Your task to perform on an android device: turn vacation reply on in the gmail app Image 0: 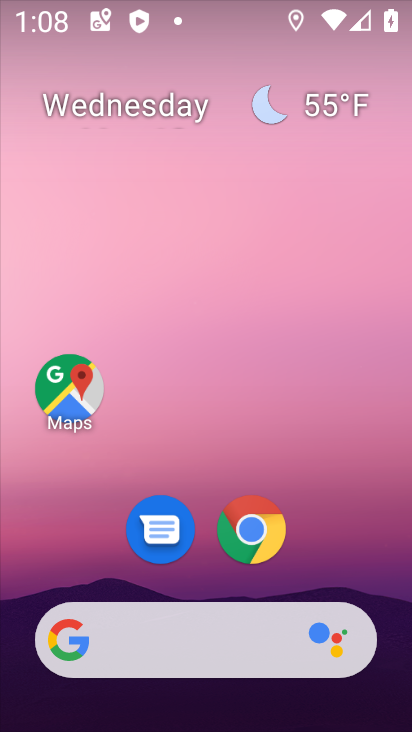
Step 0: drag from (201, 723) to (198, 187)
Your task to perform on an android device: turn vacation reply on in the gmail app Image 1: 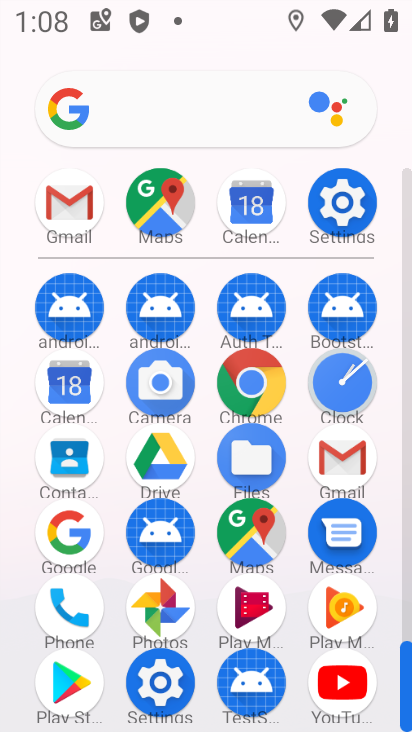
Step 1: click (349, 456)
Your task to perform on an android device: turn vacation reply on in the gmail app Image 2: 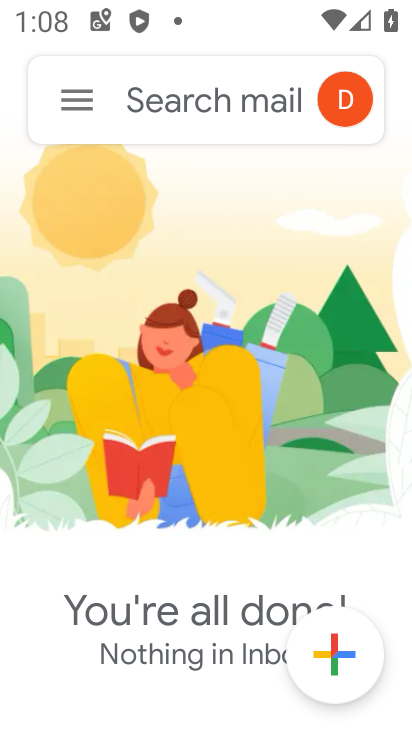
Step 2: click (77, 97)
Your task to perform on an android device: turn vacation reply on in the gmail app Image 3: 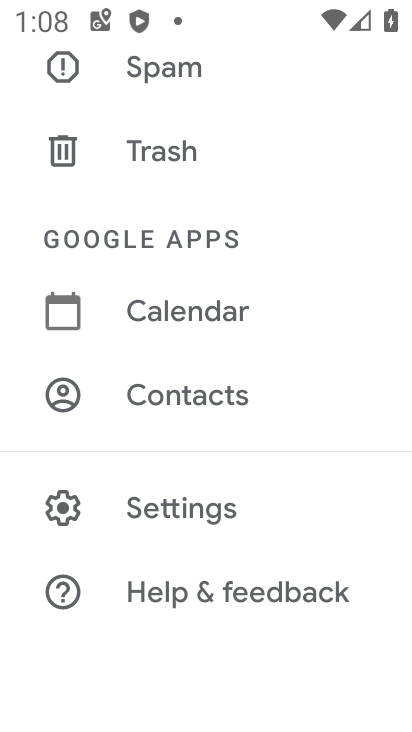
Step 3: click (193, 506)
Your task to perform on an android device: turn vacation reply on in the gmail app Image 4: 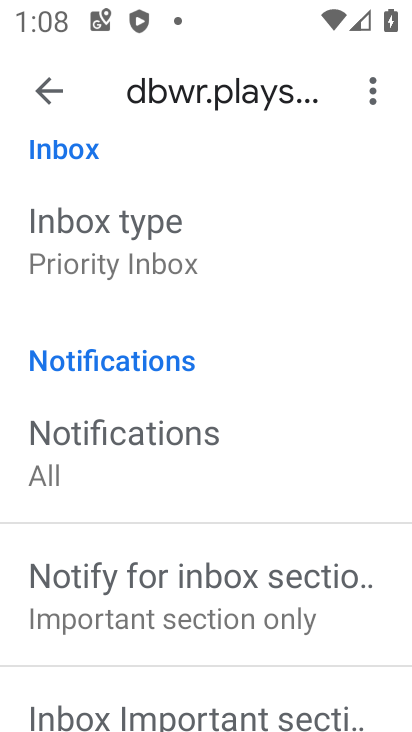
Step 4: drag from (128, 655) to (142, 343)
Your task to perform on an android device: turn vacation reply on in the gmail app Image 5: 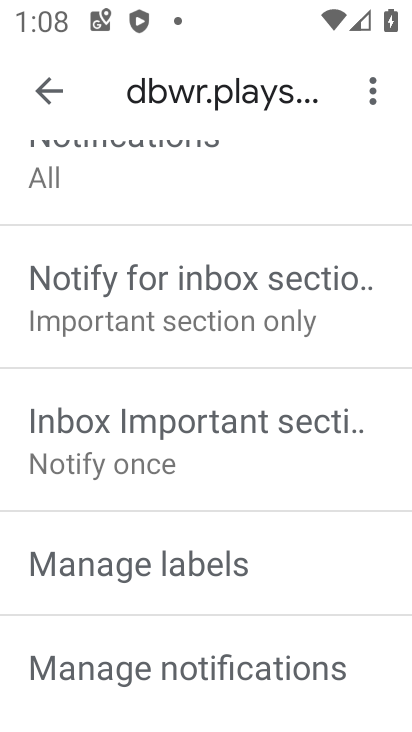
Step 5: drag from (145, 670) to (159, 283)
Your task to perform on an android device: turn vacation reply on in the gmail app Image 6: 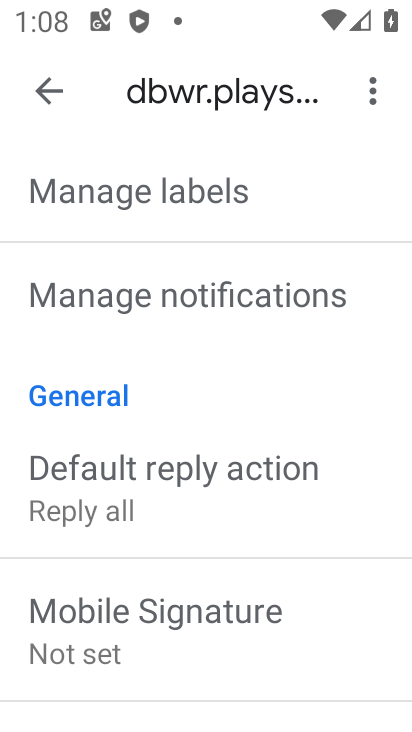
Step 6: drag from (119, 679) to (135, 277)
Your task to perform on an android device: turn vacation reply on in the gmail app Image 7: 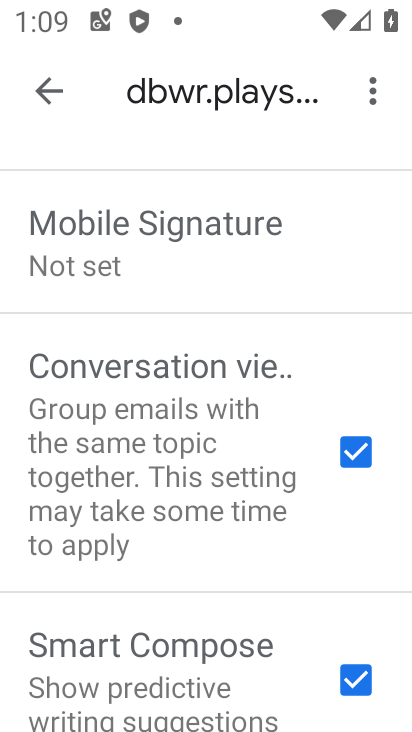
Step 7: drag from (133, 669) to (133, 309)
Your task to perform on an android device: turn vacation reply on in the gmail app Image 8: 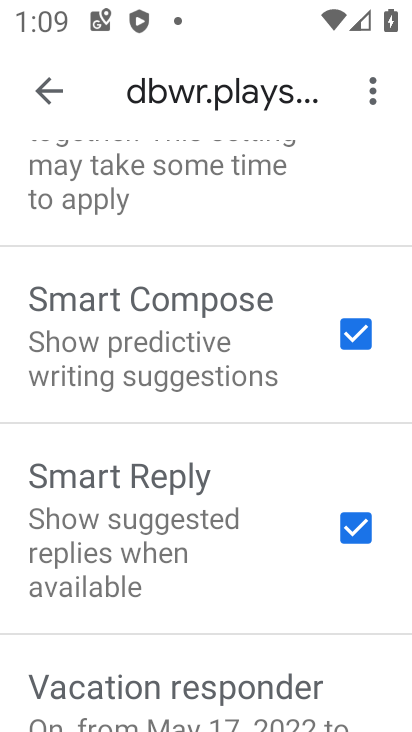
Step 8: drag from (113, 664) to (123, 354)
Your task to perform on an android device: turn vacation reply on in the gmail app Image 9: 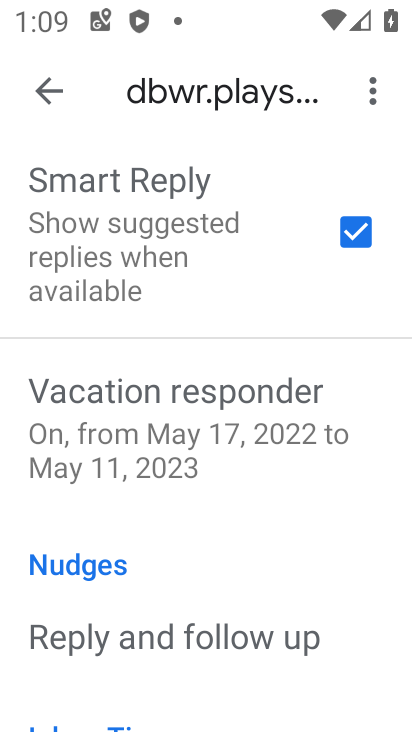
Step 9: click (126, 431)
Your task to perform on an android device: turn vacation reply on in the gmail app Image 10: 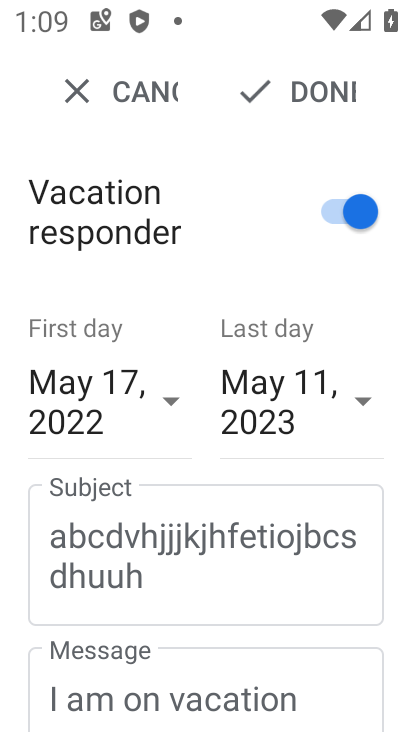
Step 10: task complete